Your task to perform on an android device: Go to battery settings Image 0: 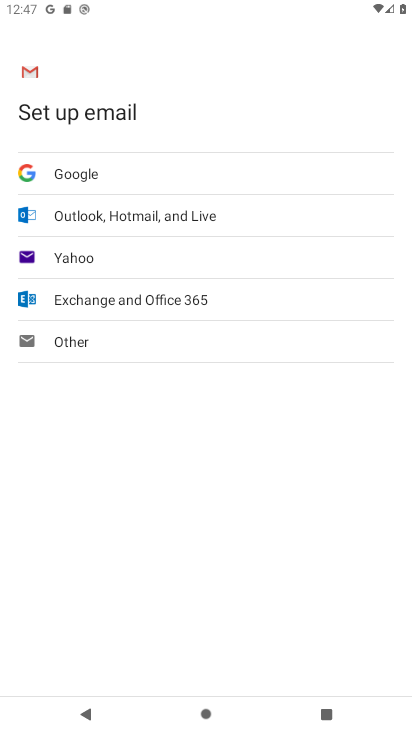
Step 0: drag from (287, 6) to (244, 561)
Your task to perform on an android device: Go to battery settings Image 1: 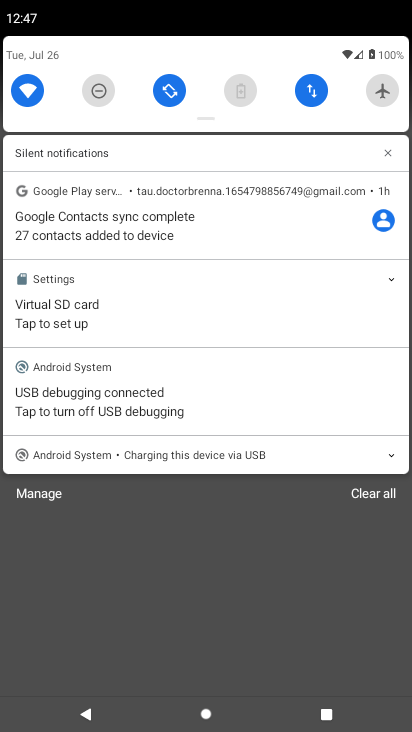
Step 1: click (243, 81)
Your task to perform on an android device: Go to battery settings Image 2: 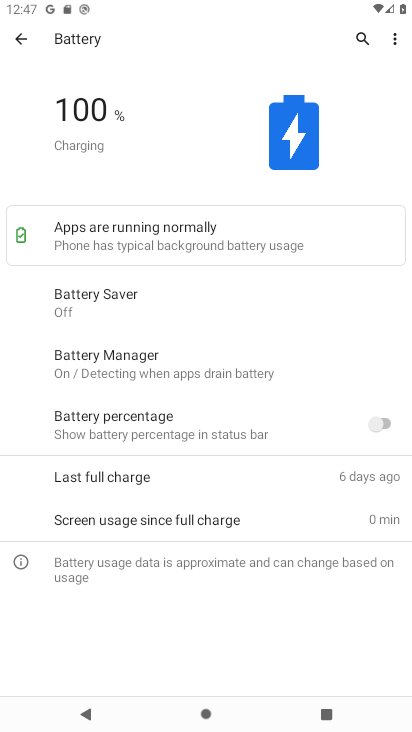
Step 2: task complete